Your task to perform on an android device: toggle pop-ups in chrome Image 0: 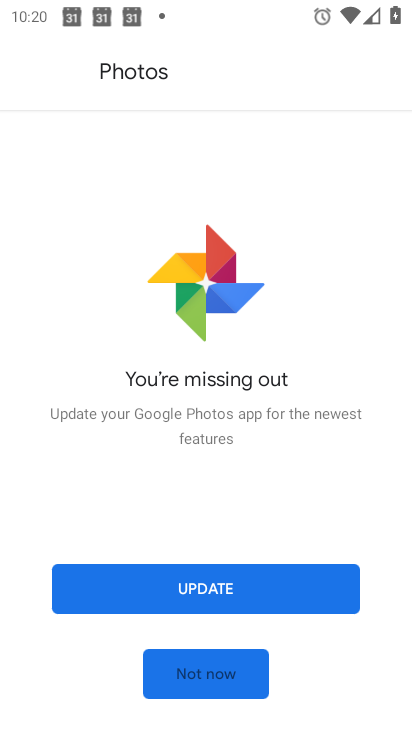
Step 0: press home button
Your task to perform on an android device: toggle pop-ups in chrome Image 1: 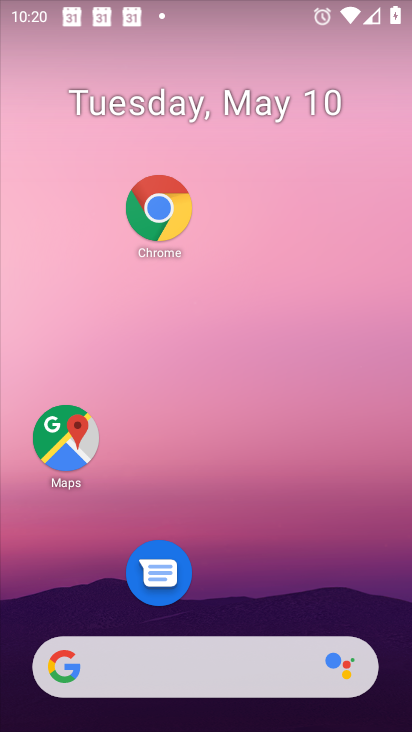
Step 1: drag from (280, 703) to (359, 59)
Your task to perform on an android device: toggle pop-ups in chrome Image 2: 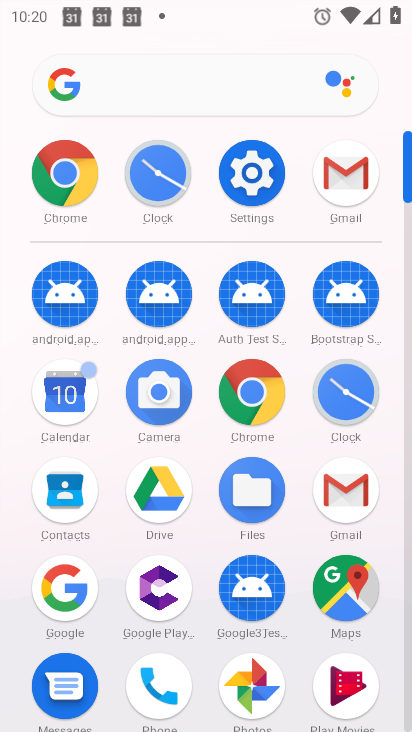
Step 2: click (98, 164)
Your task to perform on an android device: toggle pop-ups in chrome Image 3: 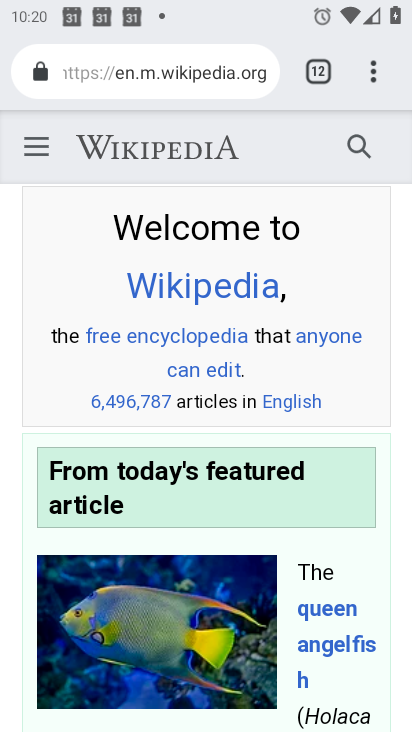
Step 3: click (377, 92)
Your task to perform on an android device: toggle pop-ups in chrome Image 4: 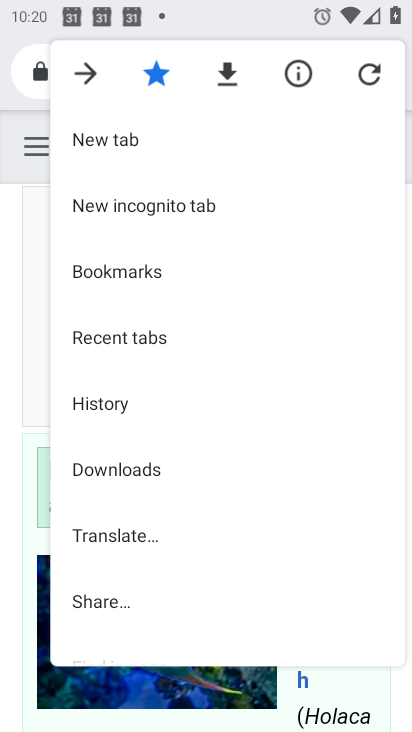
Step 4: drag from (183, 492) to (213, 207)
Your task to perform on an android device: toggle pop-ups in chrome Image 5: 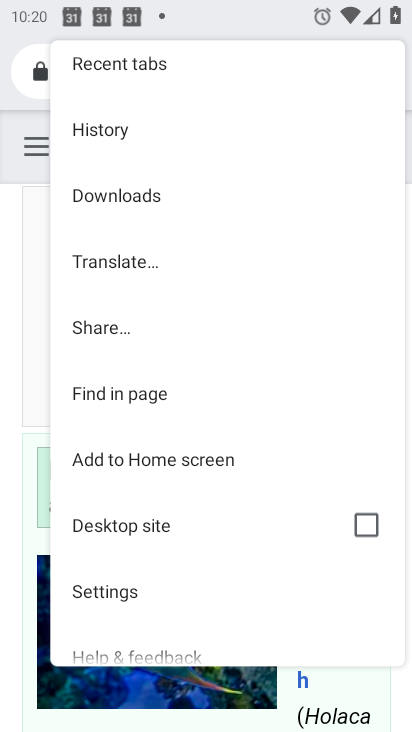
Step 5: click (146, 591)
Your task to perform on an android device: toggle pop-ups in chrome Image 6: 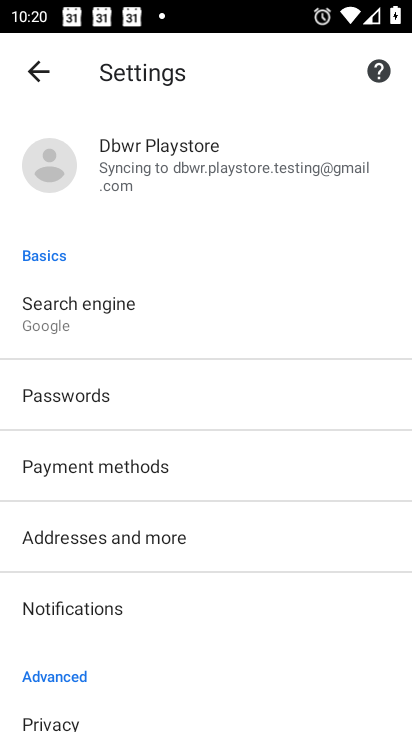
Step 6: drag from (175, 622) to (196, 437)
Your task to perform on an android device: toggle pop-ups in chrome Image 7: 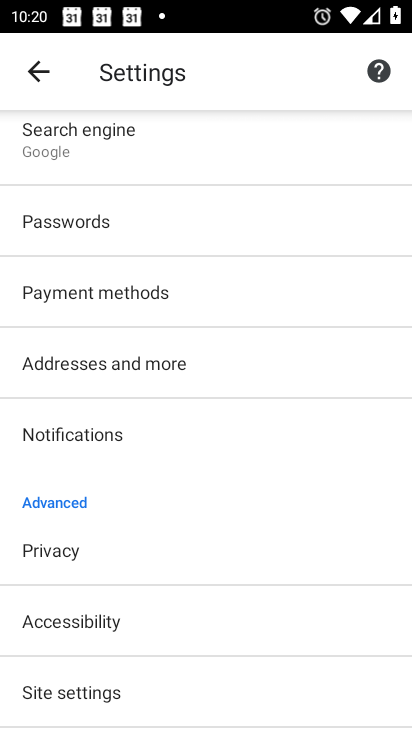
Step 7: click (106, 688)
Your task to perform on an android device: toggle pop-ups in chrome Image 8: 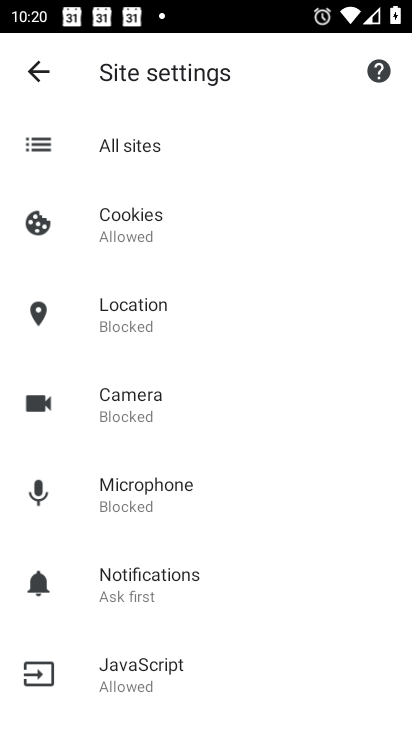
Step 8: drag from (192, 605) to (276, 435)
Your task to perform on an android device: toggle pop-ups in chrome Image 9: 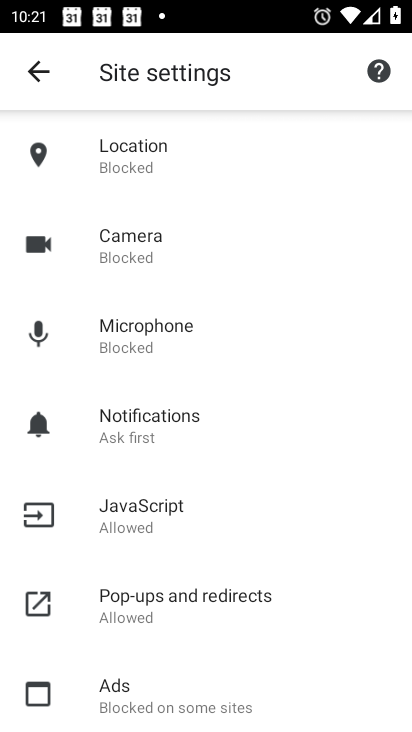
Step 9: click (201, 596)
Your task to perform on an android device: toggle pop-ups in chrome Image 10: 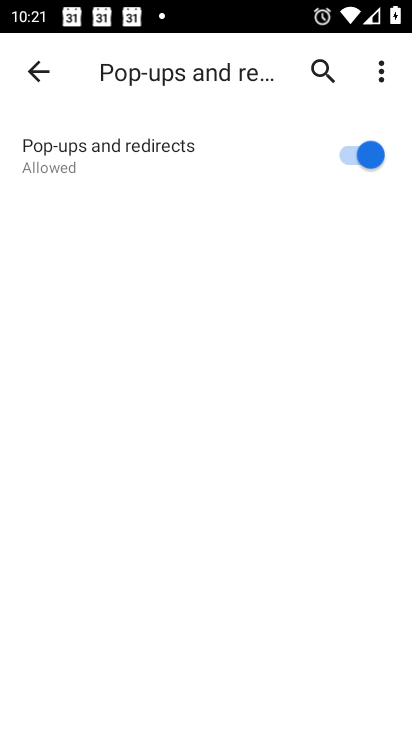
Step 10: task complete